Your task to perform on an android device: uninstall "Grab" Image 0: 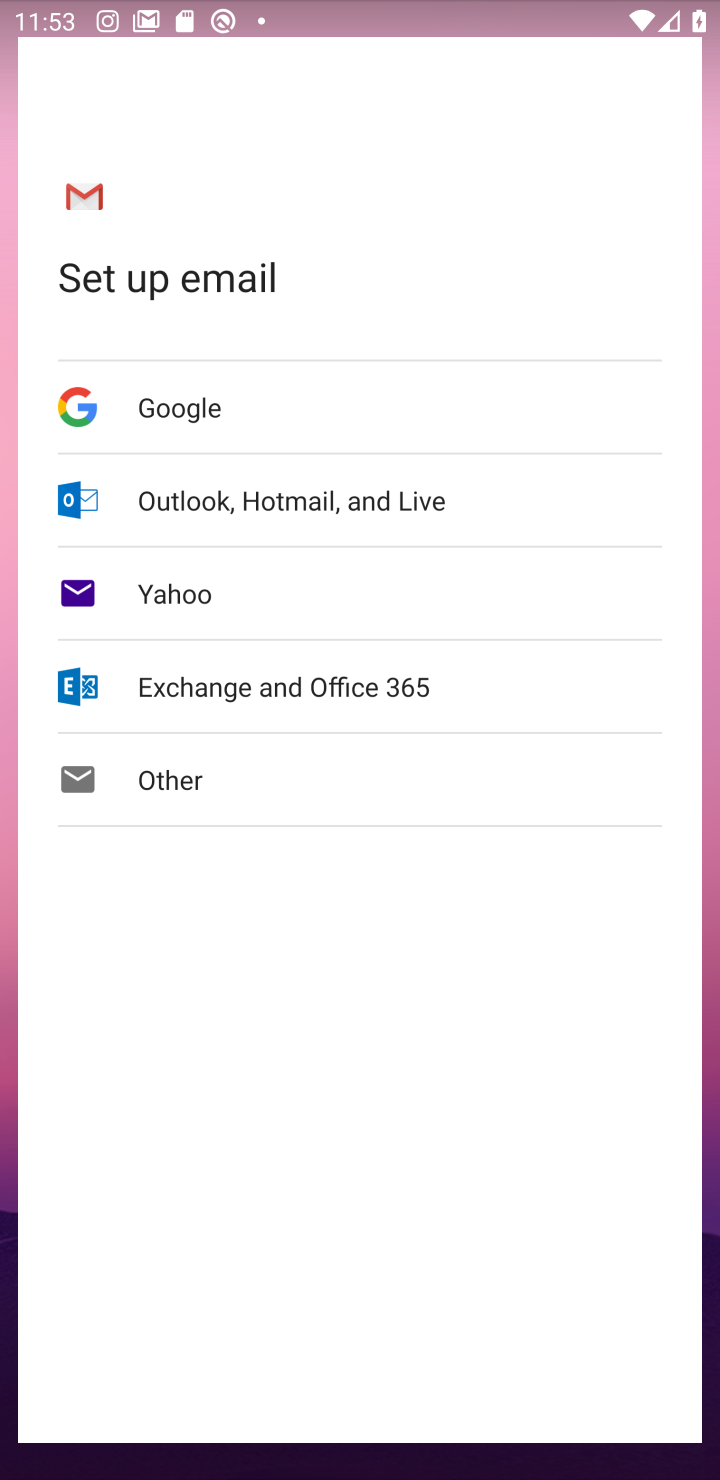
Step 0: press home button
Your task to perform on an android device: uninstall "Grab" Image 1: 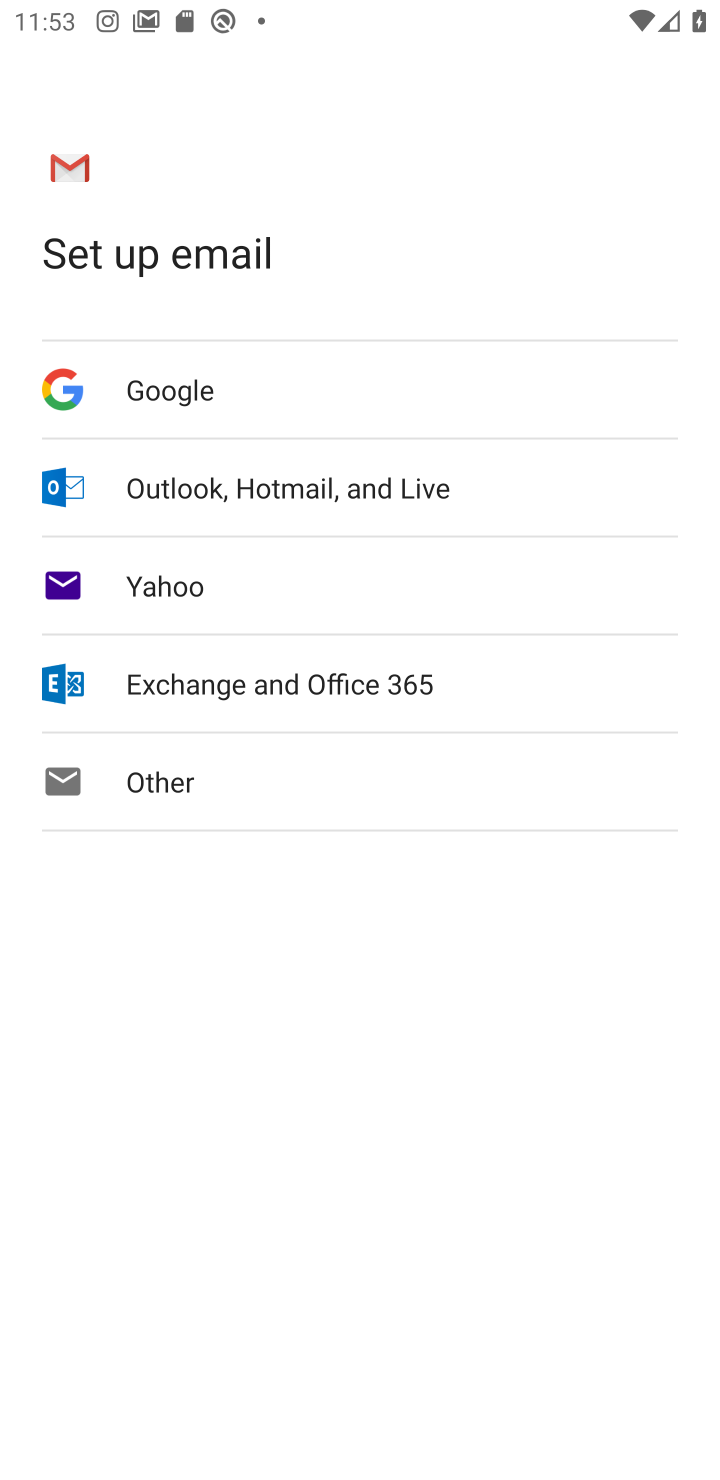
Step 1: press home button
Your task to perform on an android device: uninstall "Grab" Image 2: 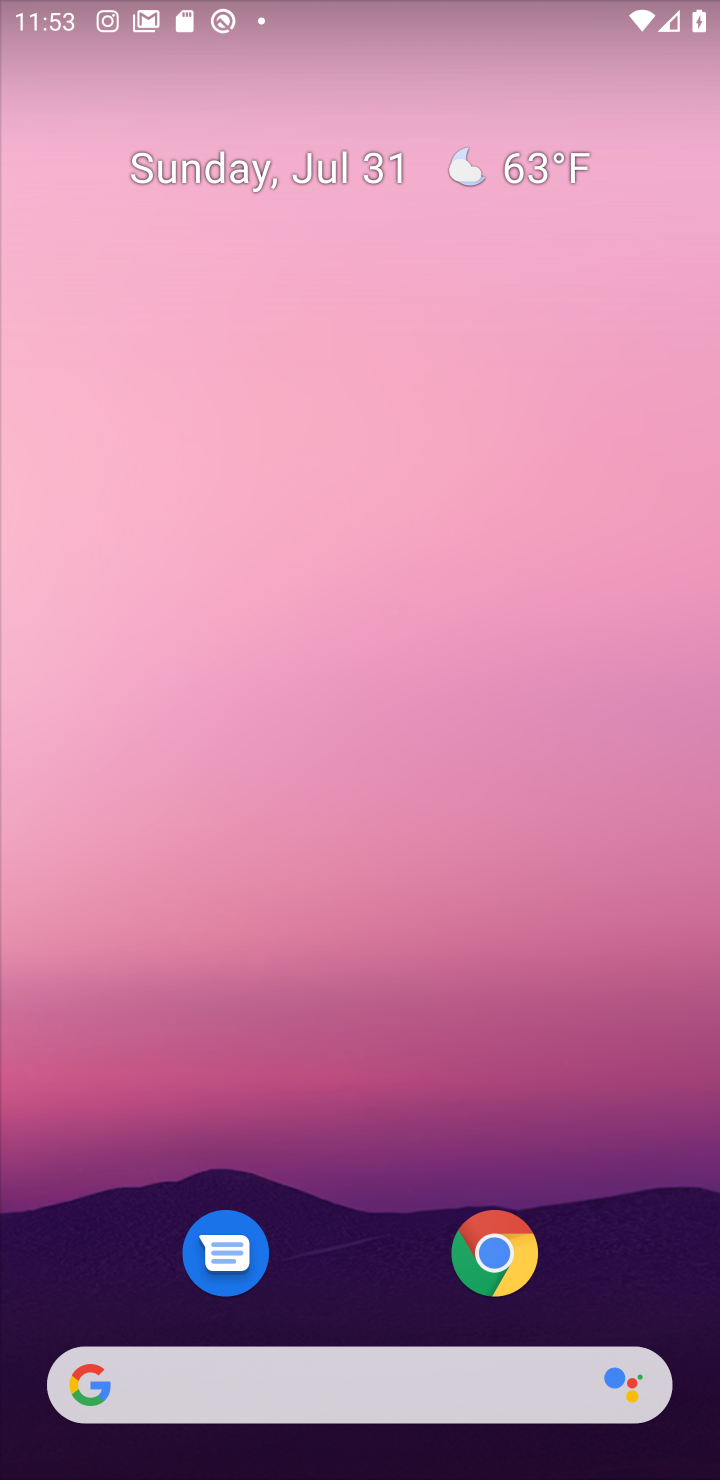
Step 2: drag from (628, 1205) to (602, 8)
Your task to perform on an android device: uninstall "Grab" Image 3: 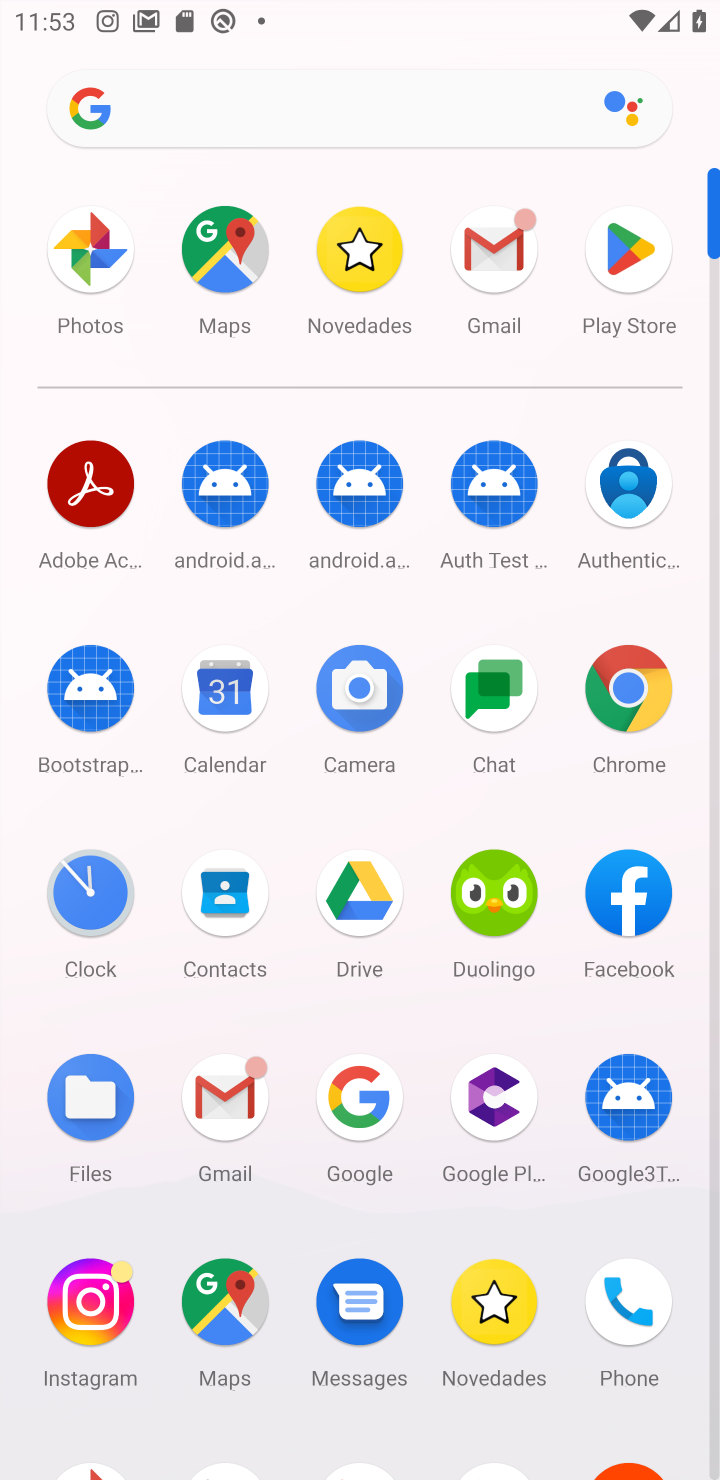
Step 3: click (644, 265)
Your task to perform on an android device: uninstall "Grab" Image 4: 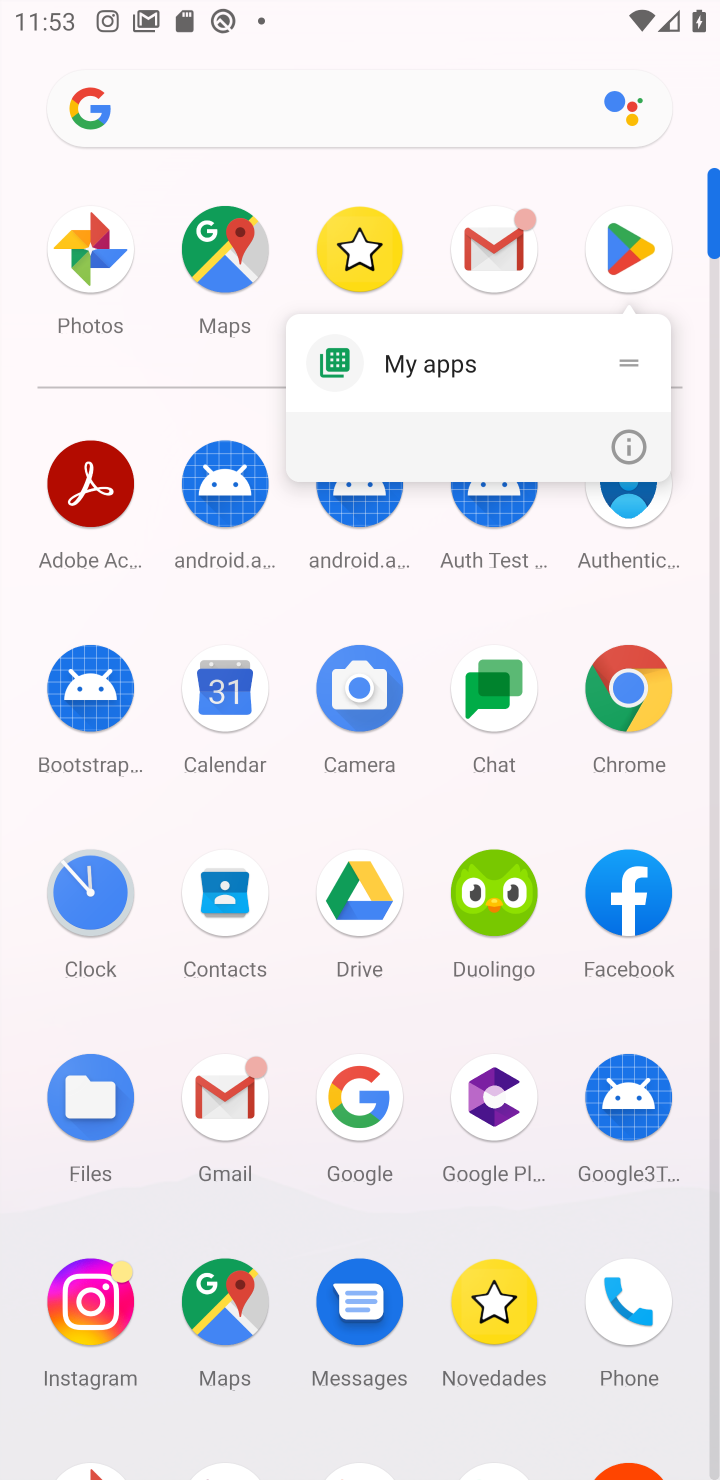
Step 4: click (615, 226)
Your task to perform on an android device: uninstall "Grab" Image 5: 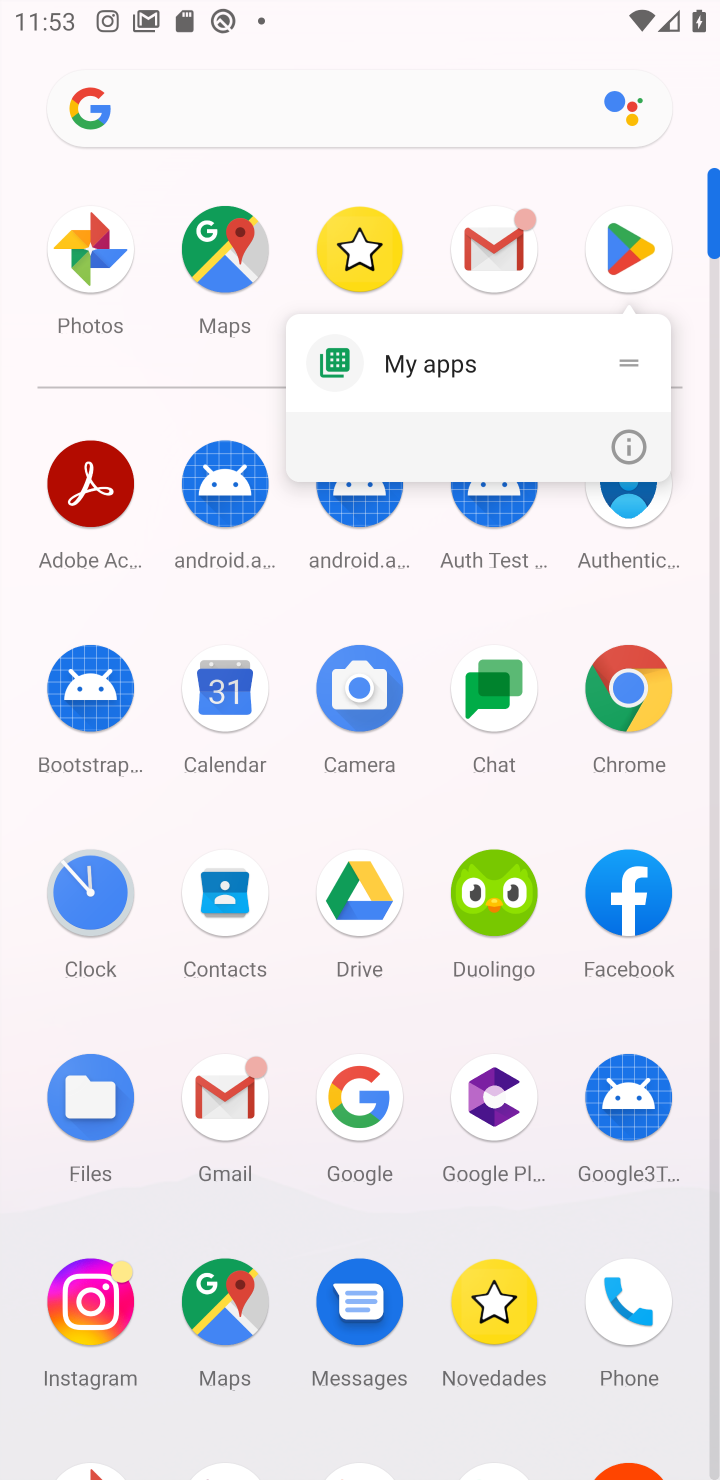
Step 5: click (617, 228)
Your task to perform on an android device: uninstall "Grab" Image 6: 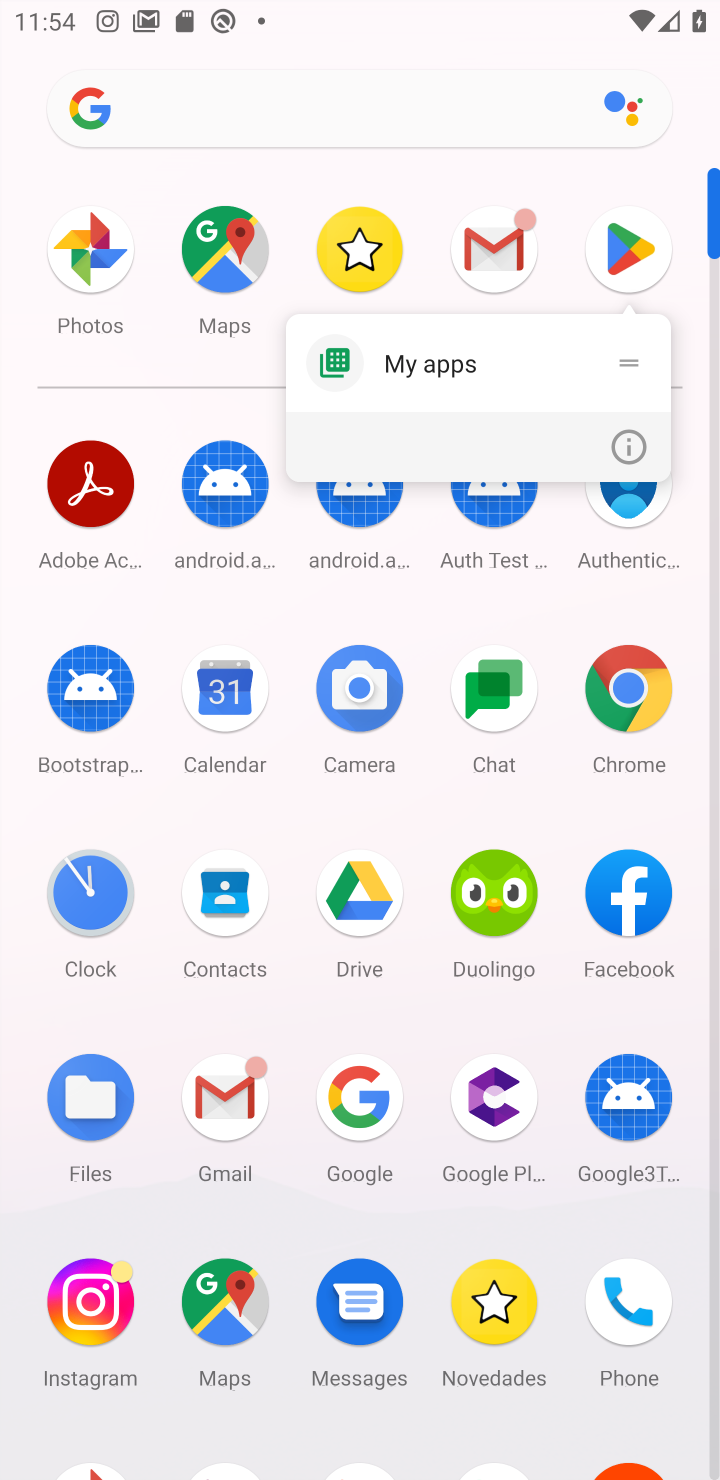
Step 6: click (425, 1214)
Your task to perform on an android device: uninstall "Grab" Image 7: 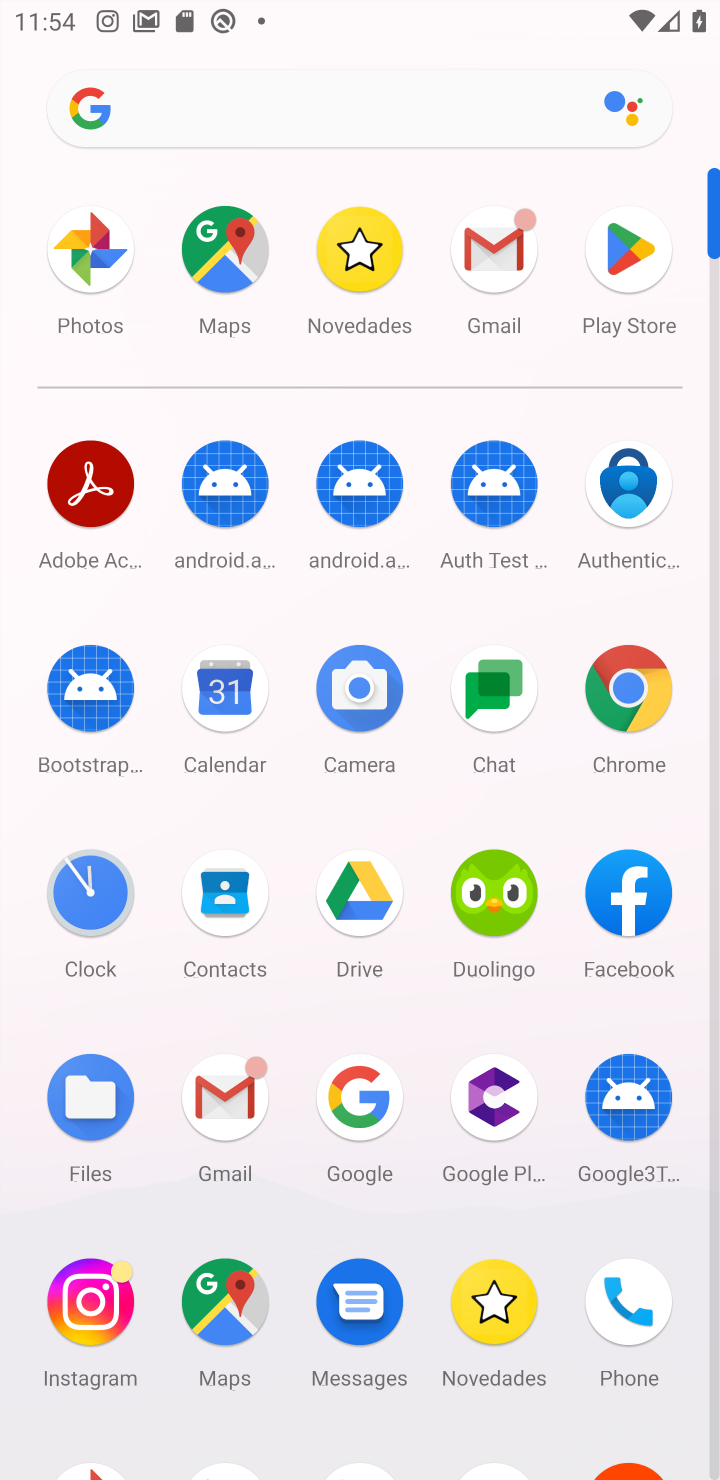
Step 7: drag from (435, 1217) to (518, 455)
Your task to perform on an android device: uninstall "Grab" Image 8: 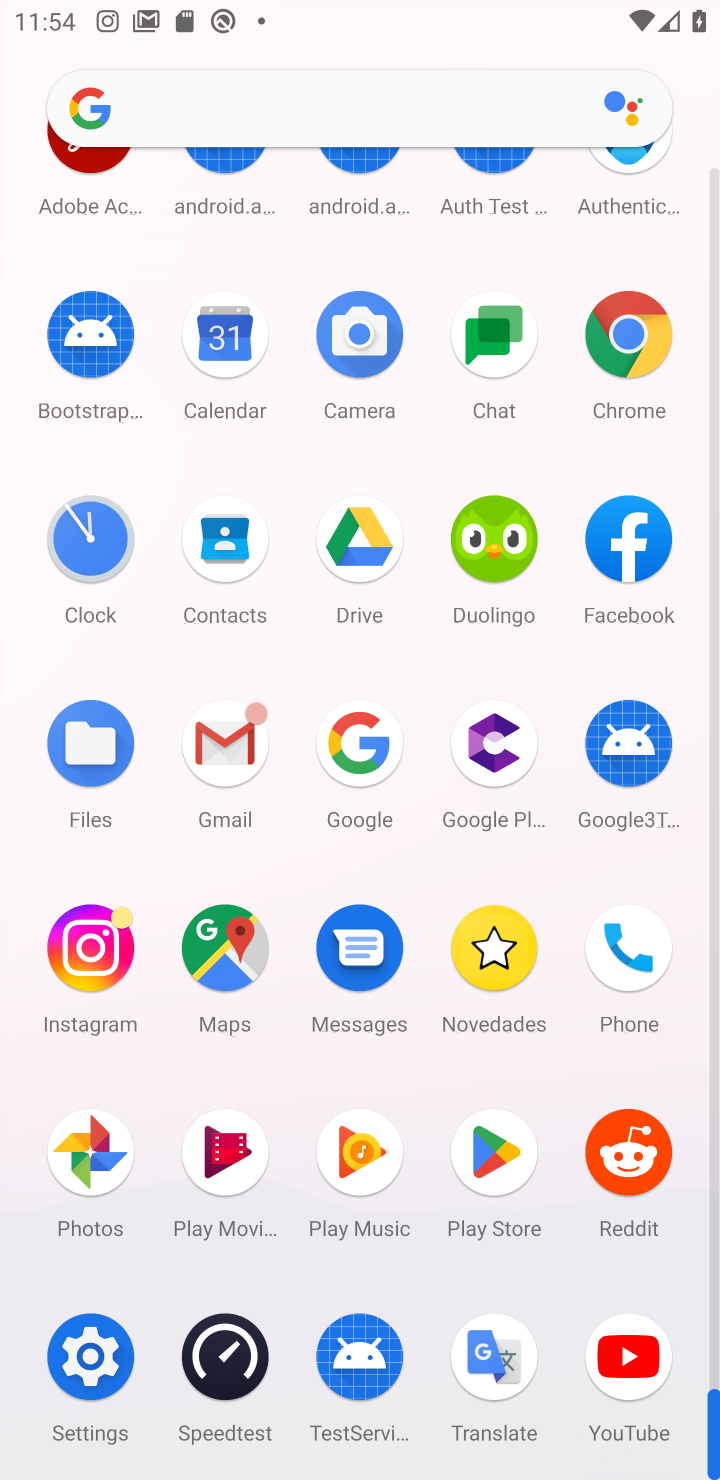
Step 8: click (495, 1165)
Your task to perform on an android device: uninstall "Grab" Image 9: 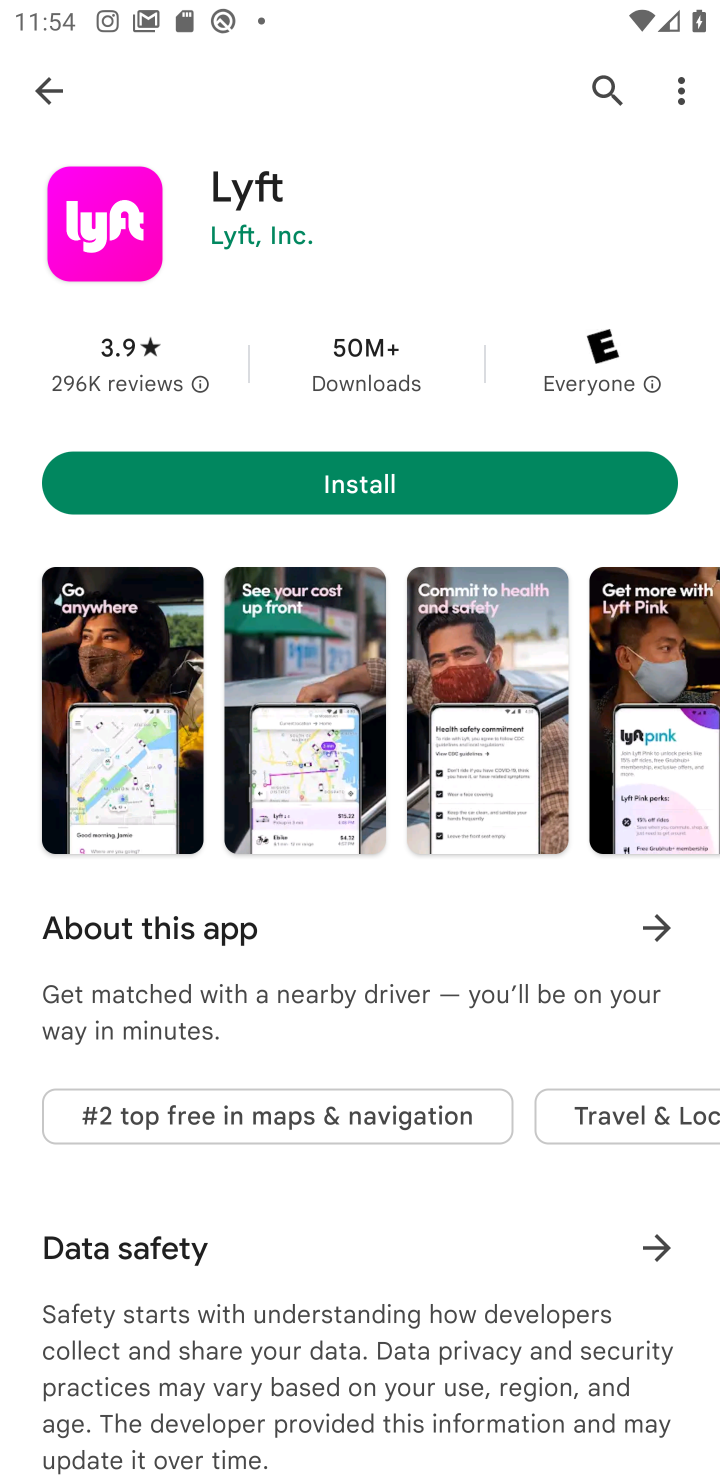
Step 9: click (612, 103)
Your task to perform on an android device: uninstall "Grab" Image 10: 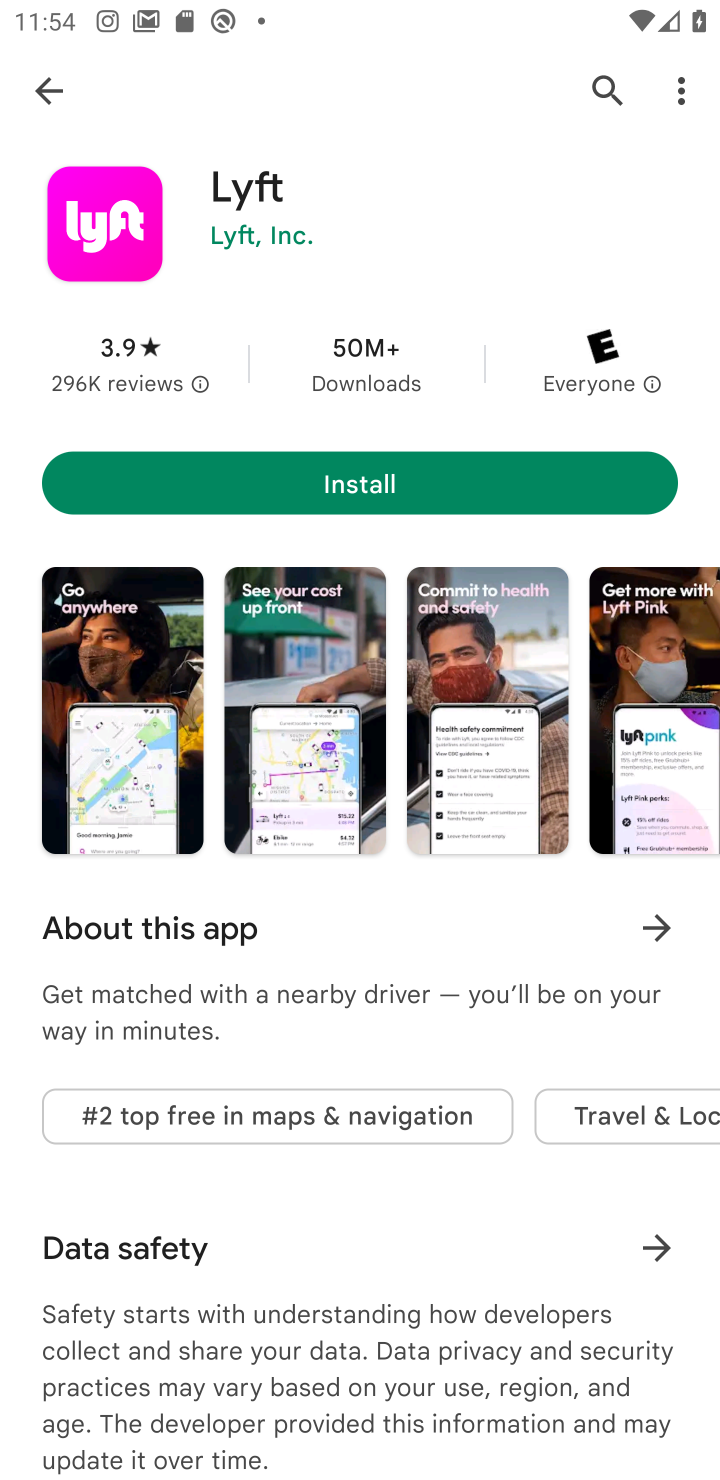
Step 10: click (604, 86)
Your task to perform on an android device: uninstall "Grab" Image 11: 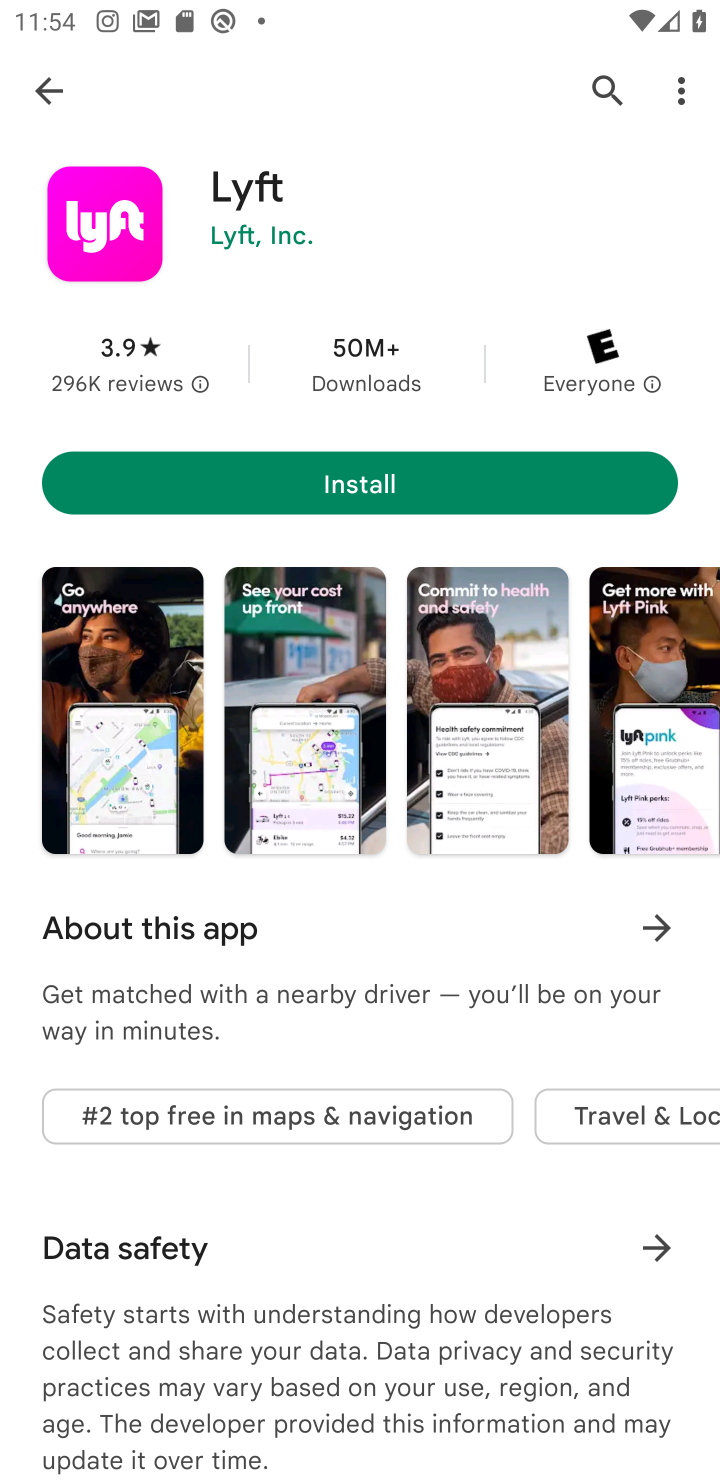
Step 11: click (604, 86)
Your task to perform on an android device: uninstall "Grab" Image 12: 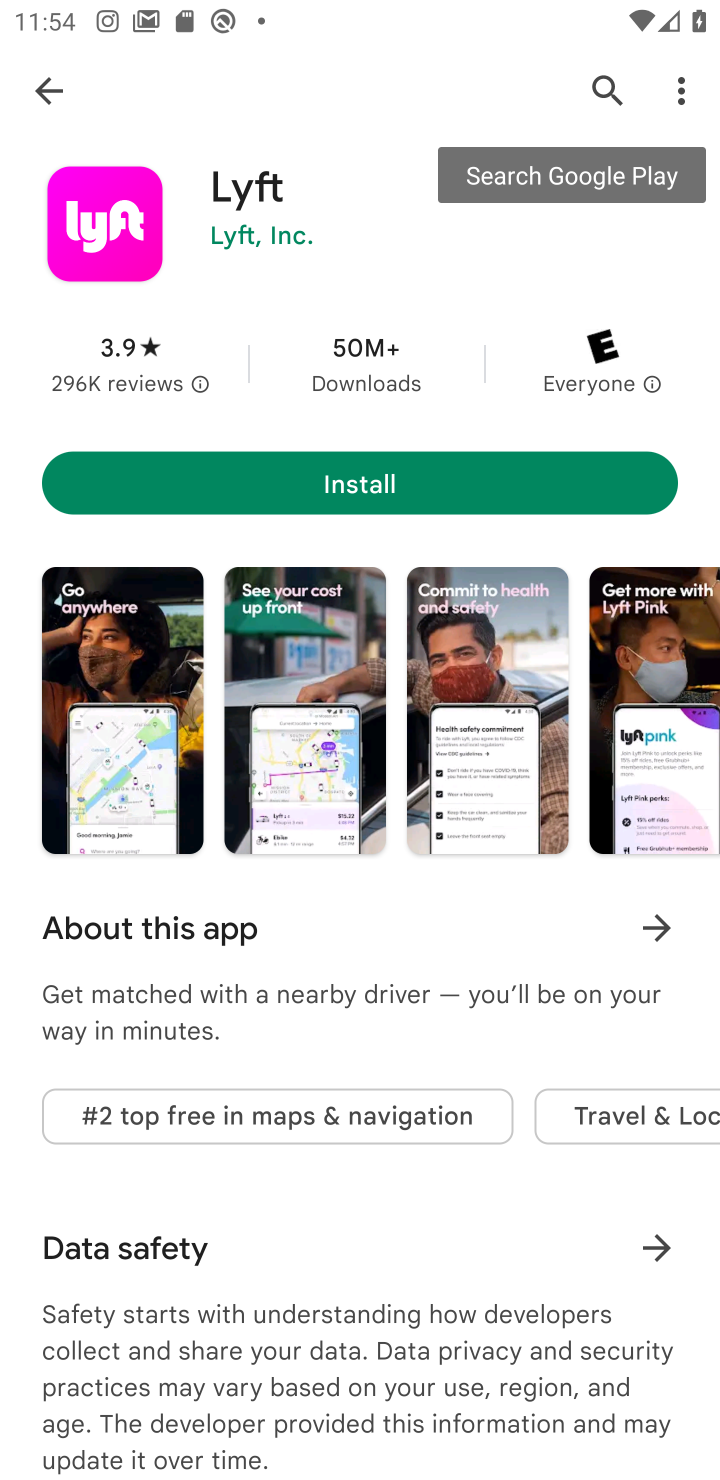
Step 12: click (33, 92)
Your task to perform on an android device: uninstall "Grab" Image 13: 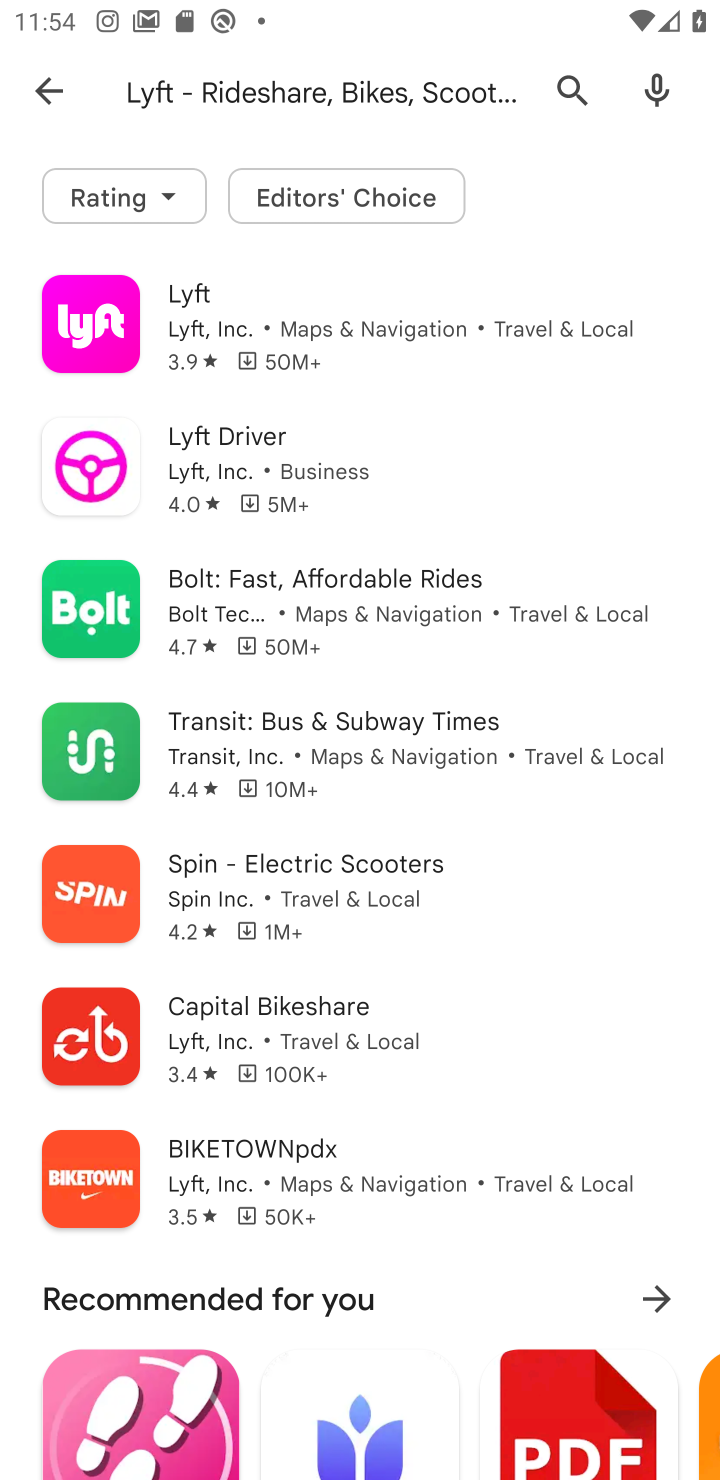
Step 13: click (573, 77)
Your task to perform on an android device: uninstall "Grab" Image 14: 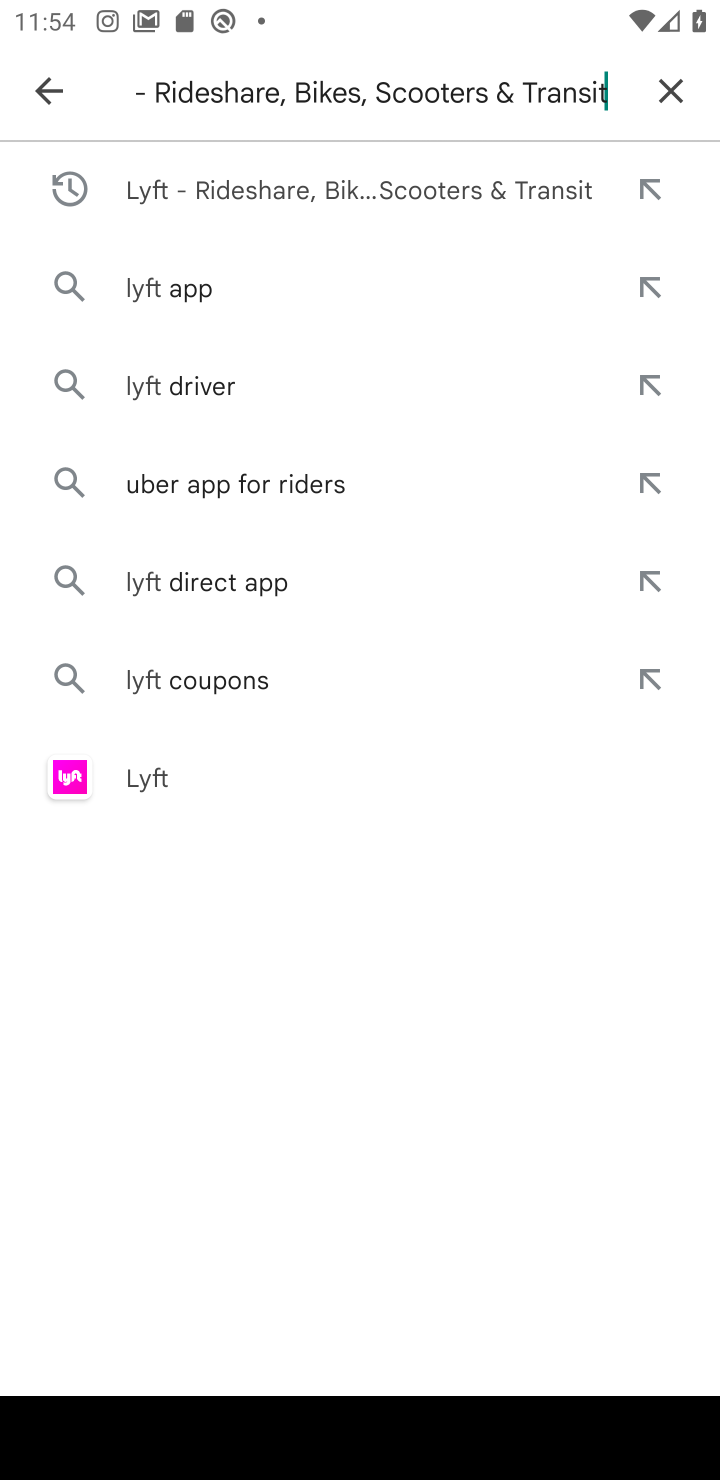
Step 14: click (673, 88)
Your task to perform on an android device: uninstall "Grab" Image 15: 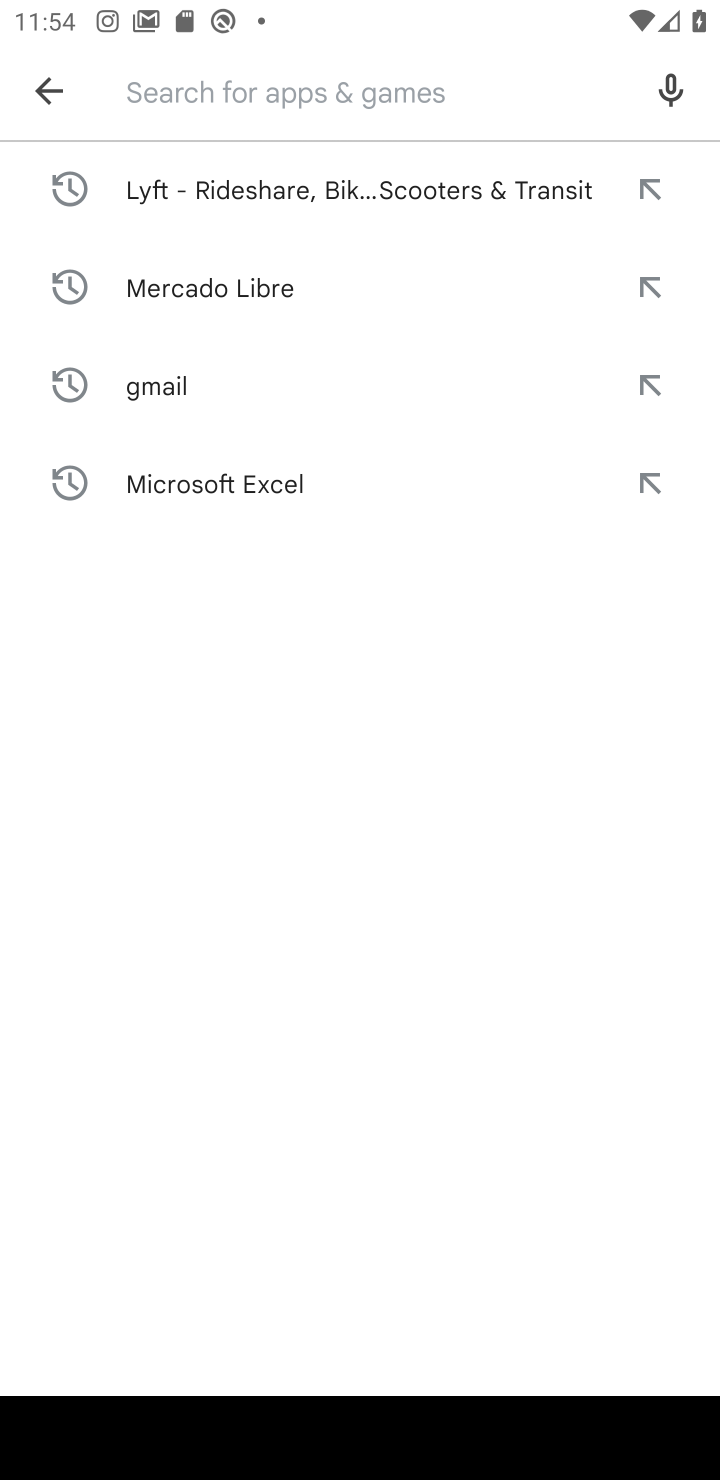
Step 15: type "Grab"
Your task to perform on an android device: uninstall "Grab" Image 16: 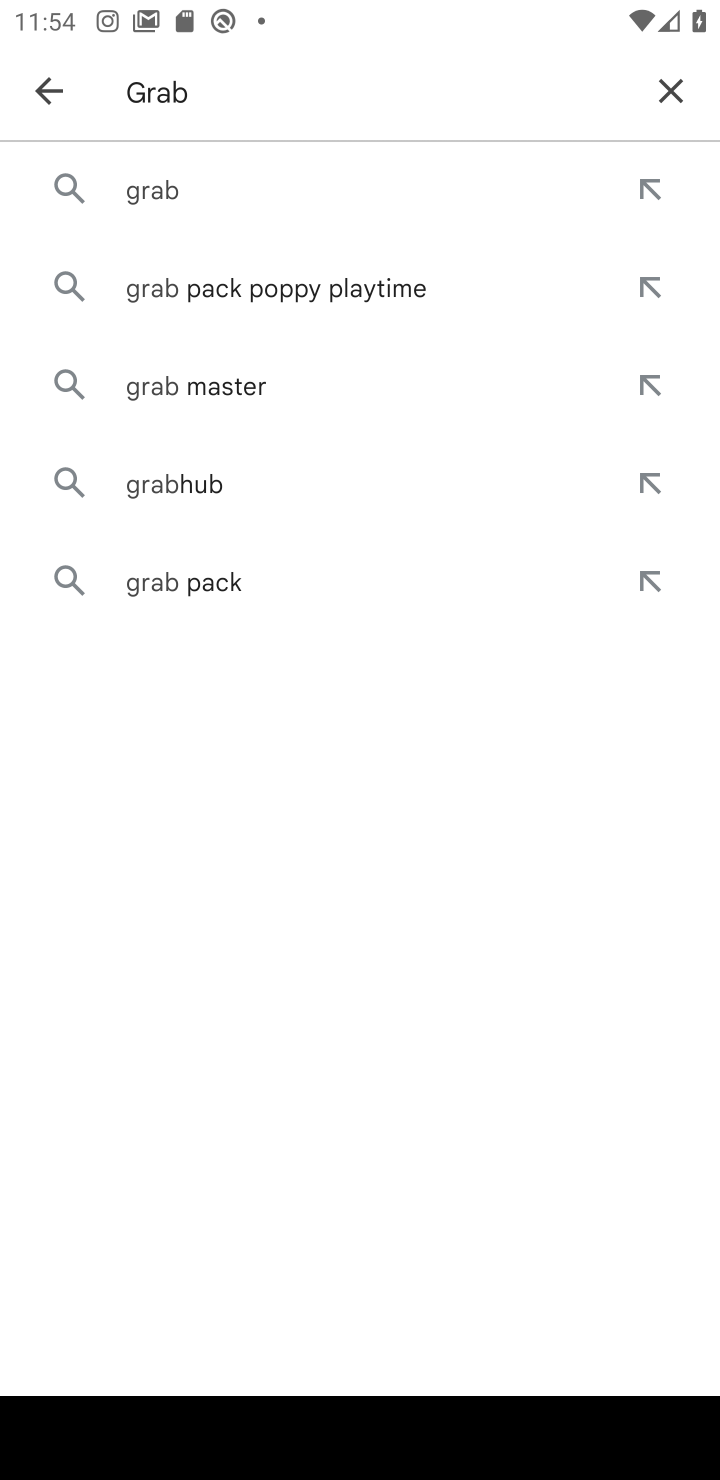
Step 16: press enter
Your task to perform on an android device: uninstall "Grab" Image 17: 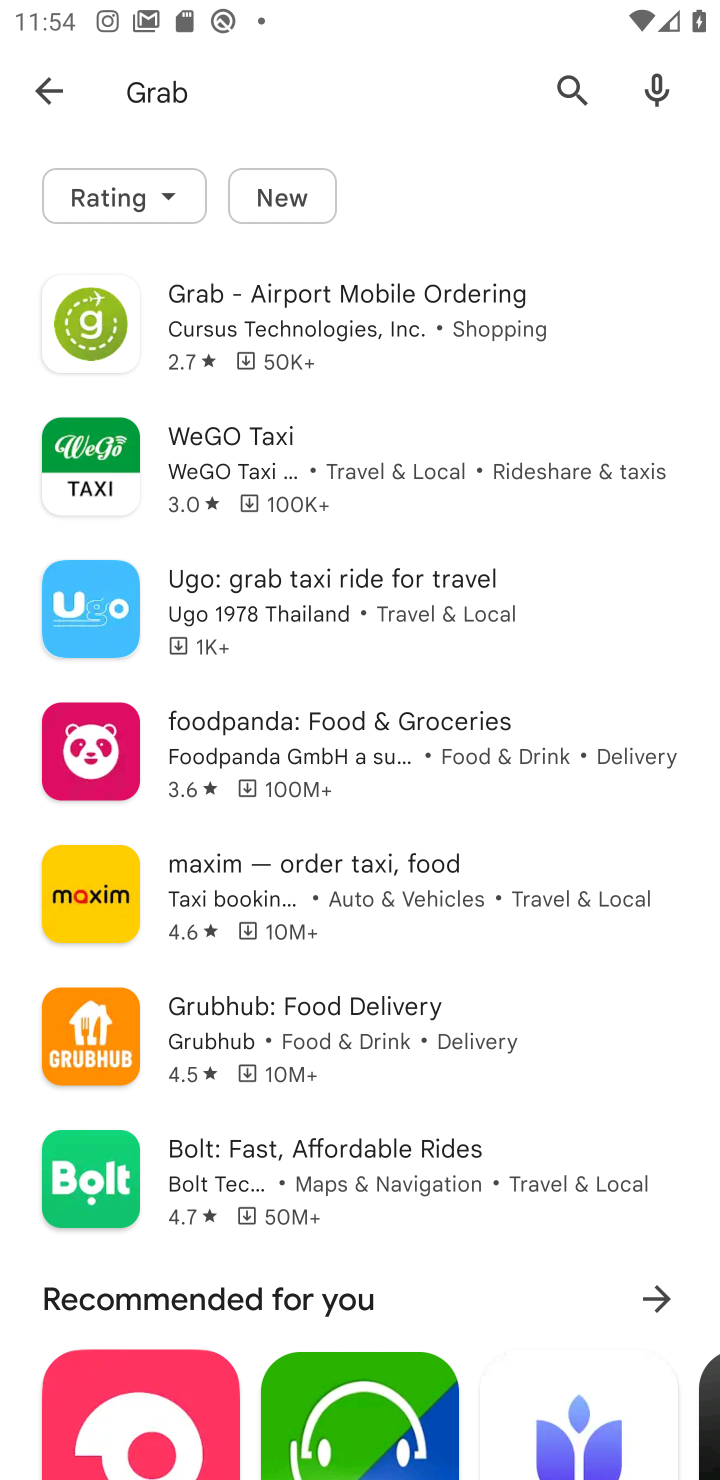
Step 17: click (342, 331)
Your task to perform on an android device: uninstall "Grab" Image 18: 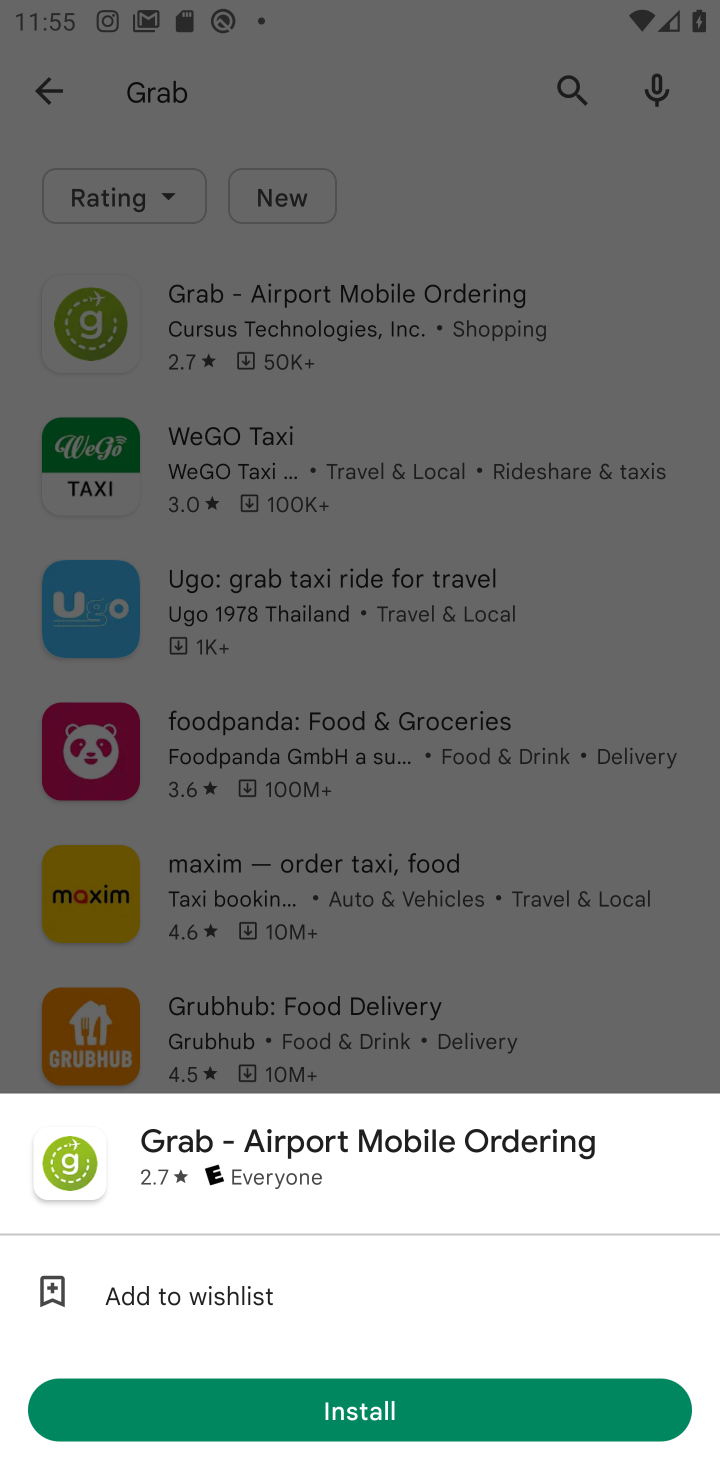
Step 18: task complete